Your task to perform on an android device: Open Chrome and go to settings Image 0: 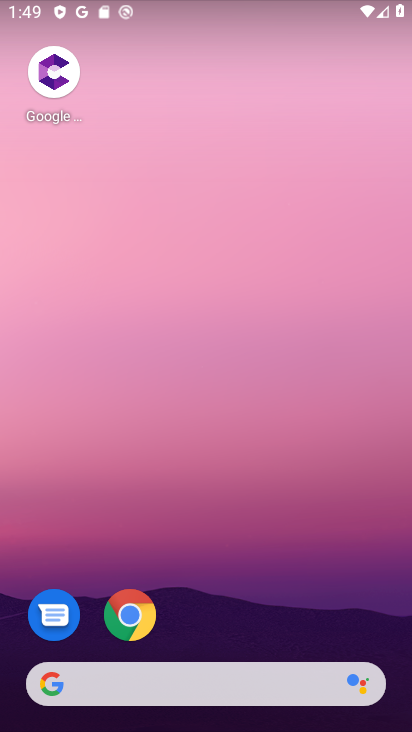
Step 0: drag from (345, 610) to (288, 180)
Your task to perform on an android device: Open Chrome and go to settings Image 1: 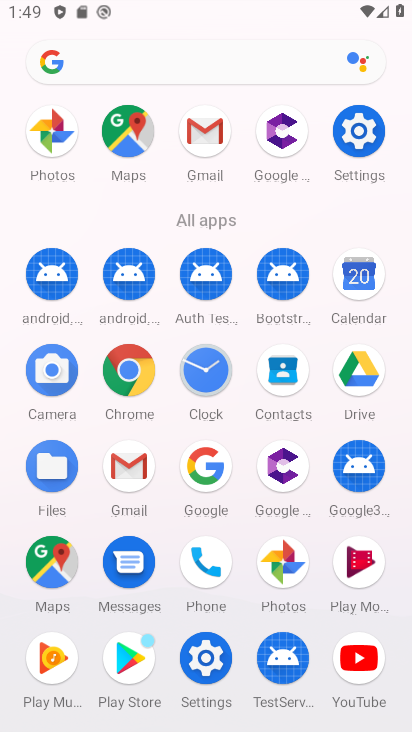
Step 1: click (120, 357)
Your task to perform on an android device: Open Chrome and go to settings Image 2: 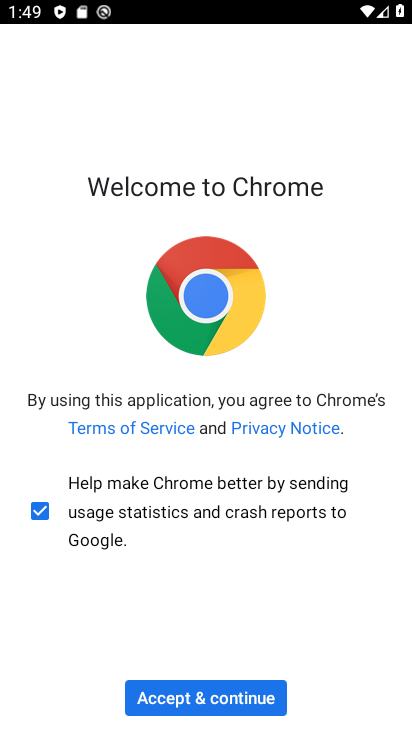
Step 2: click (203, 707)
Your task to perform on an android device: Open Chrome and go to settings Image 3: 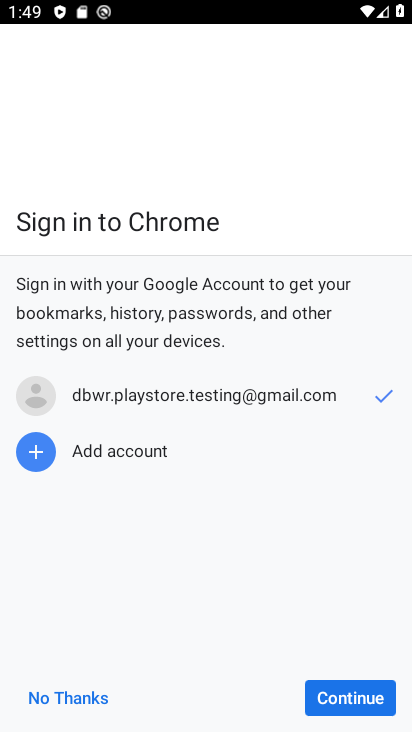
Step 3: click (364, 701)
Your task to perform on an android device: Open Chrome and go to settings Image 4: 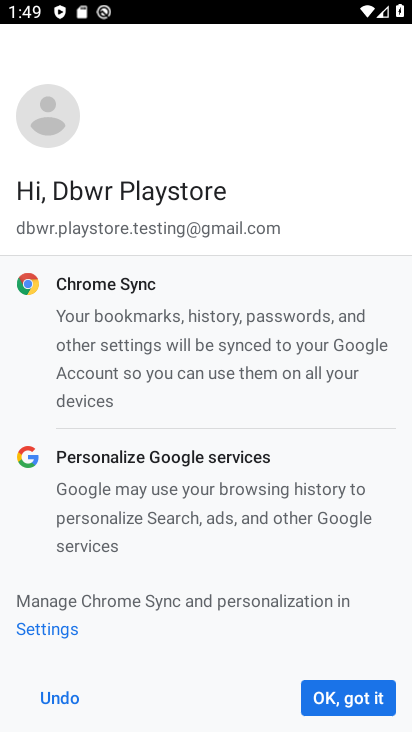
Step 4: click (369, 702)
Your task to perform on an android device: Open Chrome and go to settings Image 5: 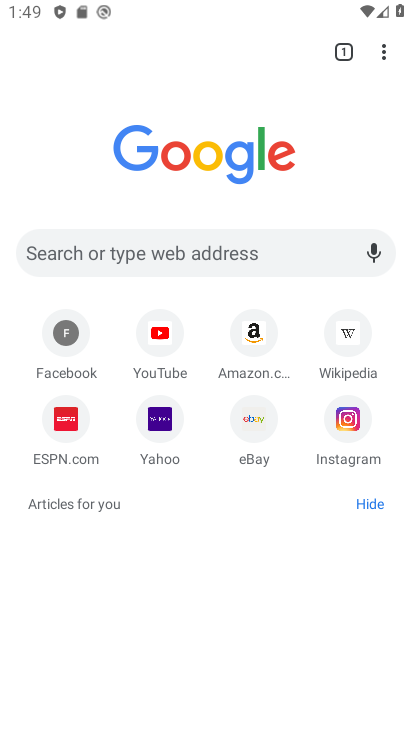
Step 5: click (385, 57)
Your task to perform on an android device: Open Chrome and go to settings Image 6: 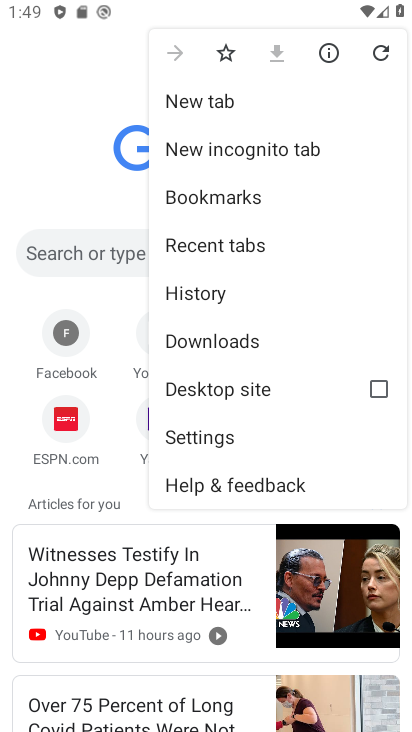
Step 6: click (312, 440)
Your task to perform on an android device: Open Chrome and go to settings Image 7: 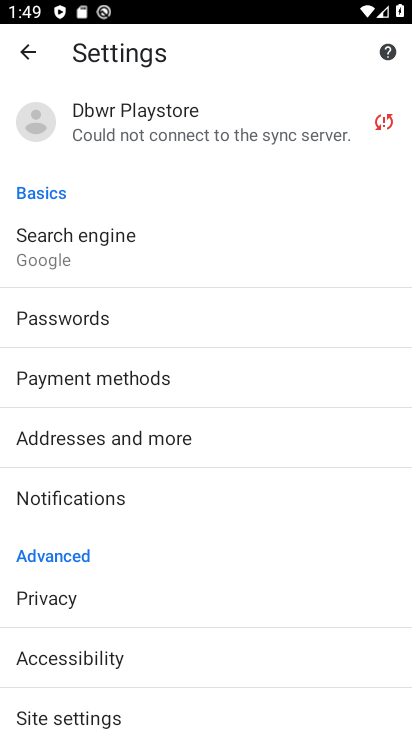
Step 7: task complete